Your task to perform on an android device: open app "Etsy: Buy & Sell Unique Items" (install if not already installed) Image 0: 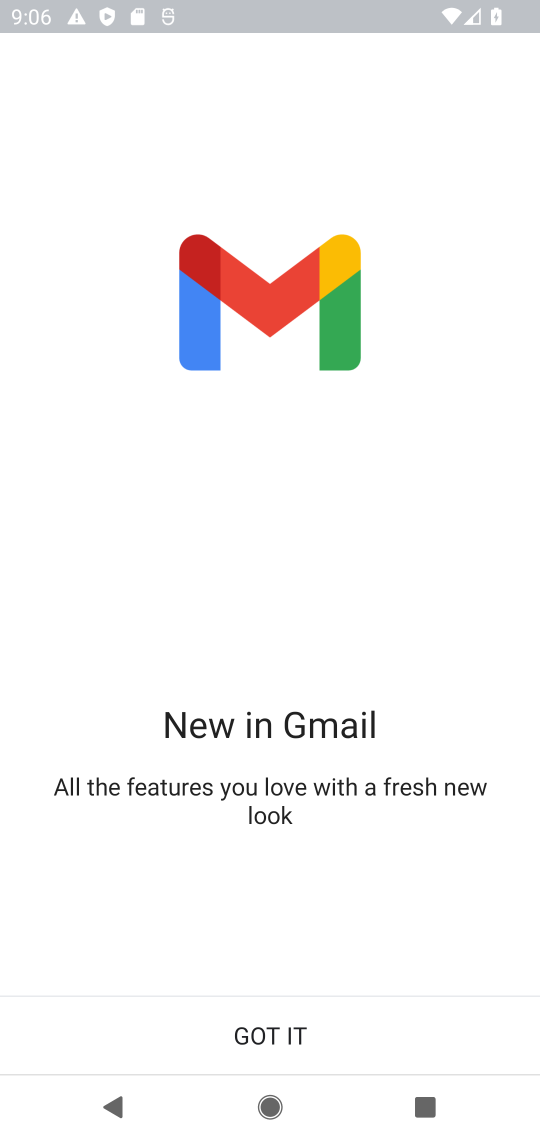
Step 0: press home button
Your task to perform on an android device: open app "Etsy: Buy & Sell Unique Items" (install if not already installed) Image 1: 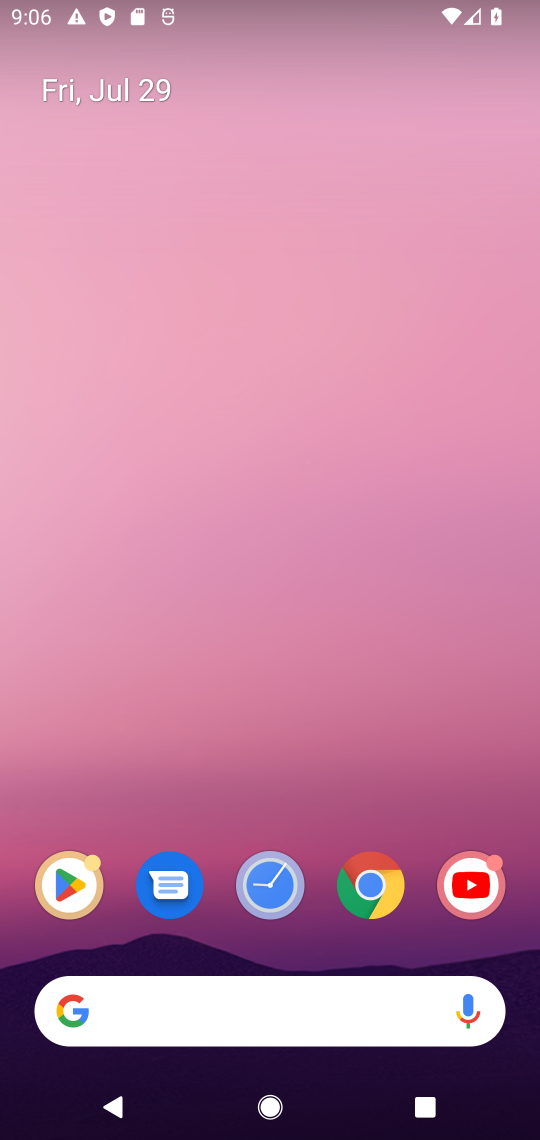
Step 1: click (77, 880)
Your task to perform on an android device: open app "Etsy: Buy & Sell Unique Items" (install if not already installed) Image 2: 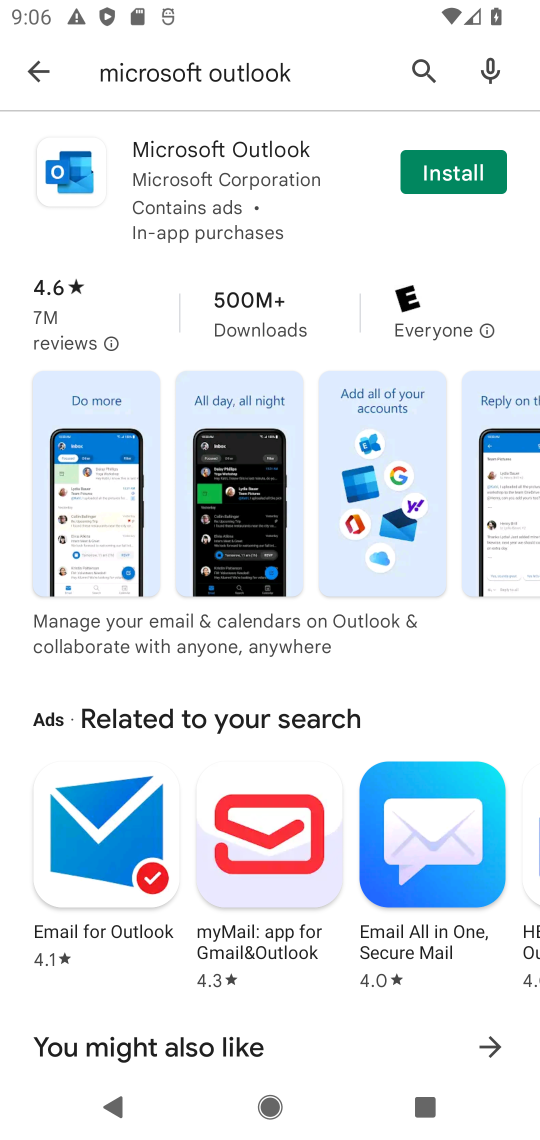
Step 2: click (195, 80)
Your task to perform on an android device: open app "Etsy: Buy & Sell Unique Items" (install if not already installed) Image 3: 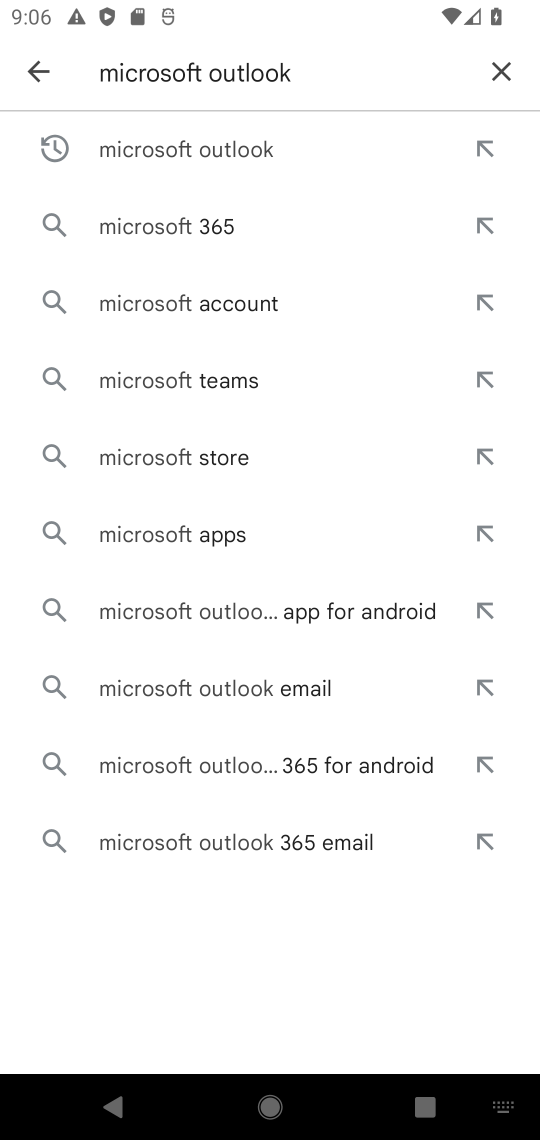
Step 3: click (502, 77)
Your task to perform on an android device: open app "Etsy: Buy & Sell Unique Items" (install if not already installed) Image 4: 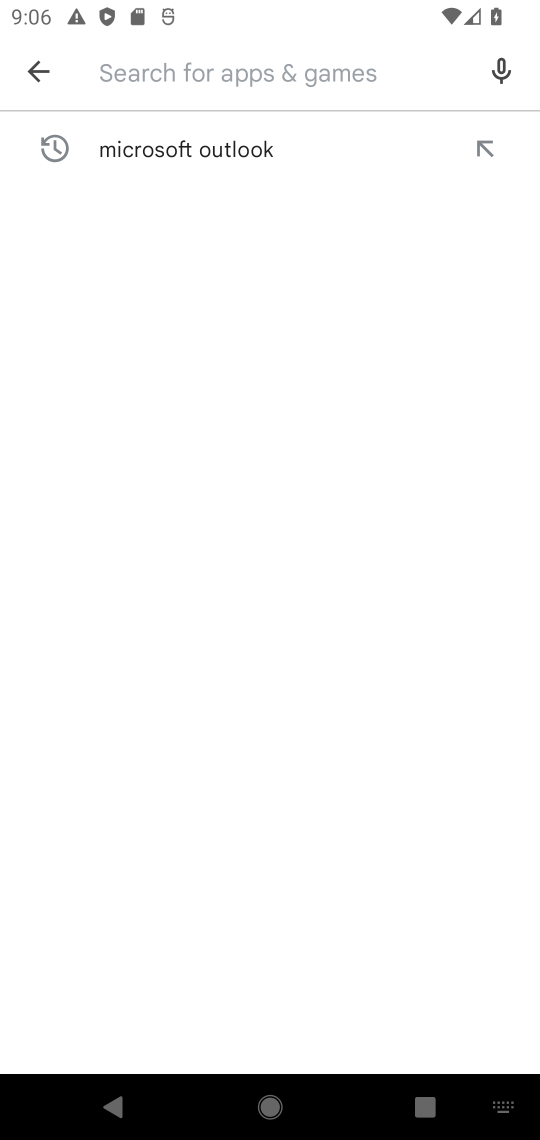
Step 4: type "etsy"
Your task to perform on an android device: open app "Etsy: Buy & Sell Unique Items" (install if not already installed) Image 5: 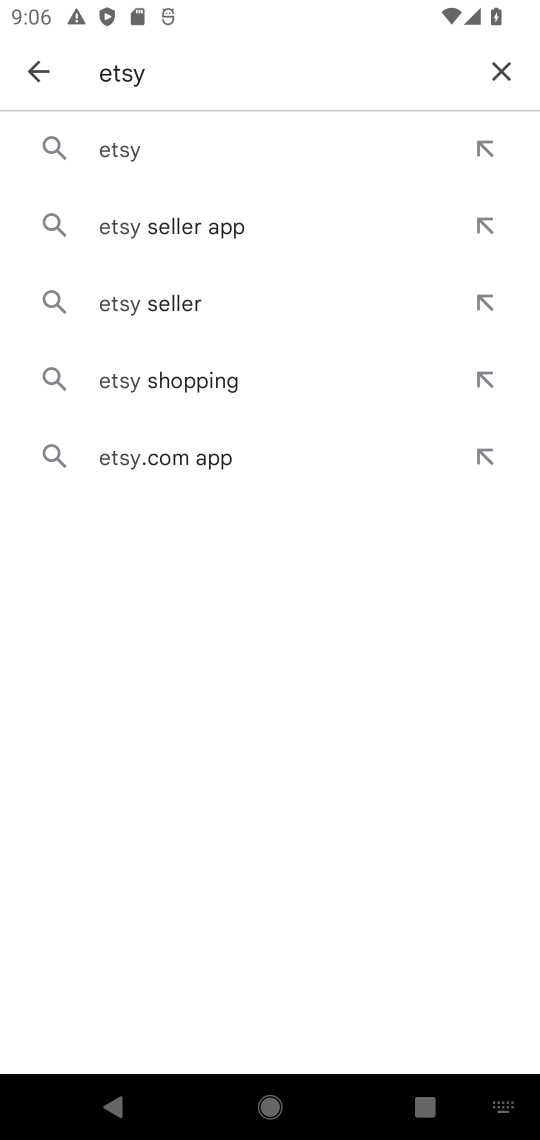
Step 5: click (147, 168)
Your task to perform on an android device: open app "Etsy: Buy & Sell Unique Items" (install if not already installed) Image 6: 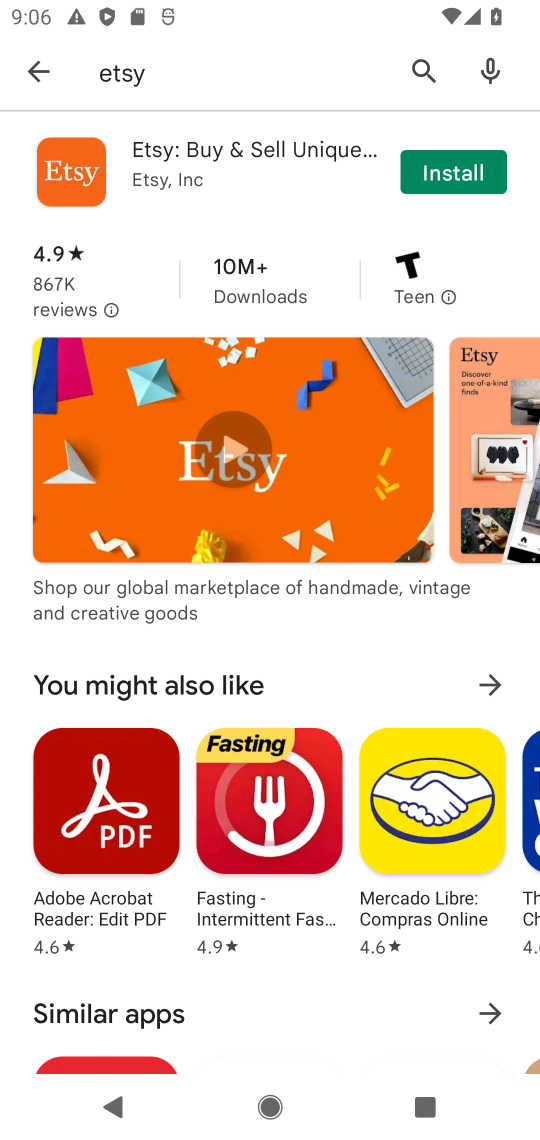
Step 6: click (479, 170)
Your task to perform on an android device: open app "Etsy: Buy & Sell Unique Items" (install if not already installed) Image 7: 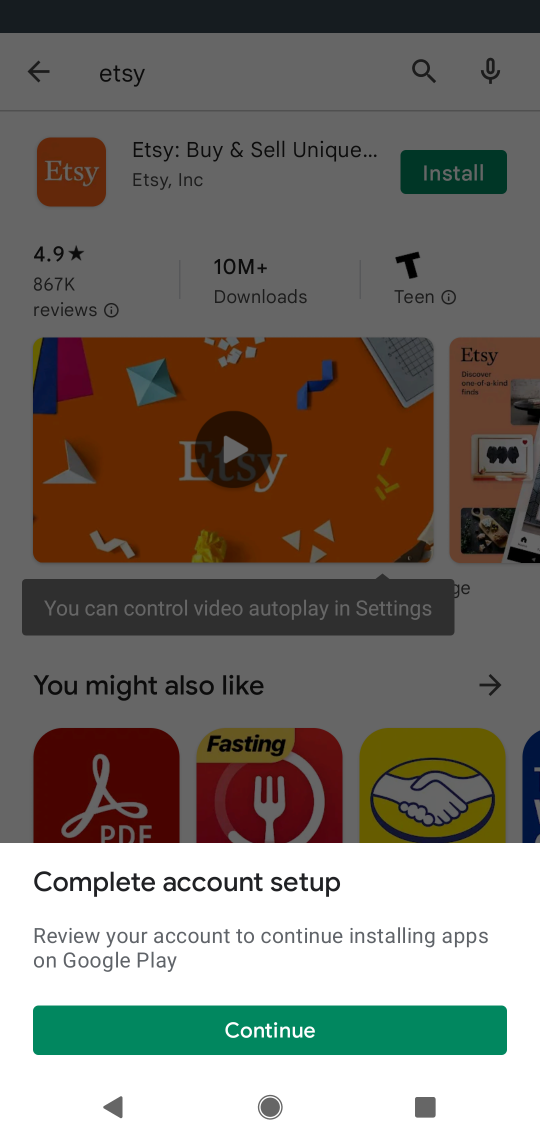
Step 7: click (302, 1035)
Your task to perform on an android device: open app "Etsy: Buy & Sell Unique Items" (install if not already installed) Image 8: 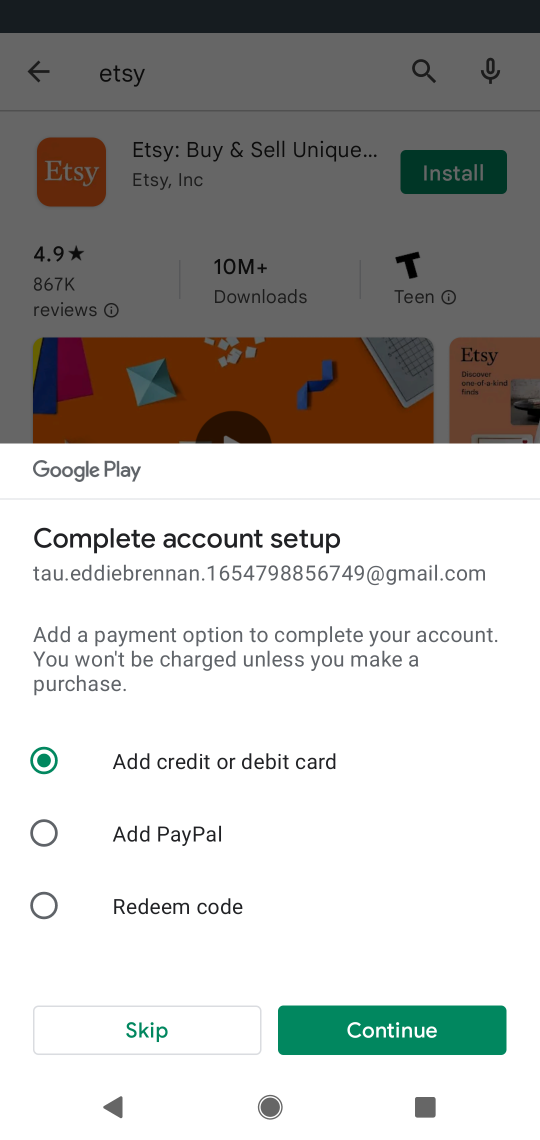
Step 8: click (159, 1031)
Your task to perform on an android device: open app "Etsy: Buy & Sell Unique Items" (install if not already installed) Image 9: 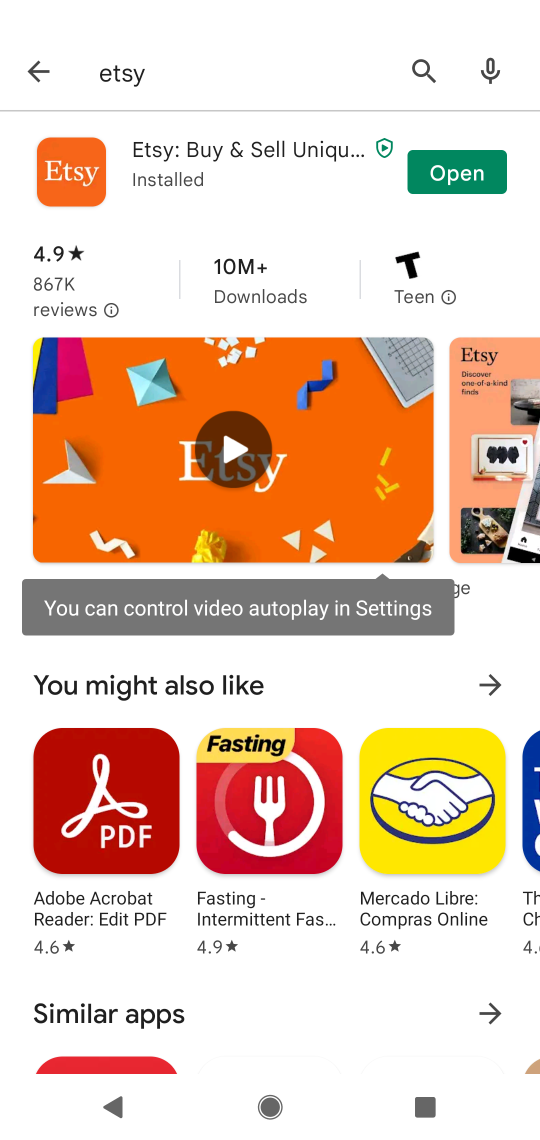
Step 9: click (451, 168)
Your task to perform on an android device: open app "Etsy: Buy & Sell Unique Items" (install if not already installed) Image 10: 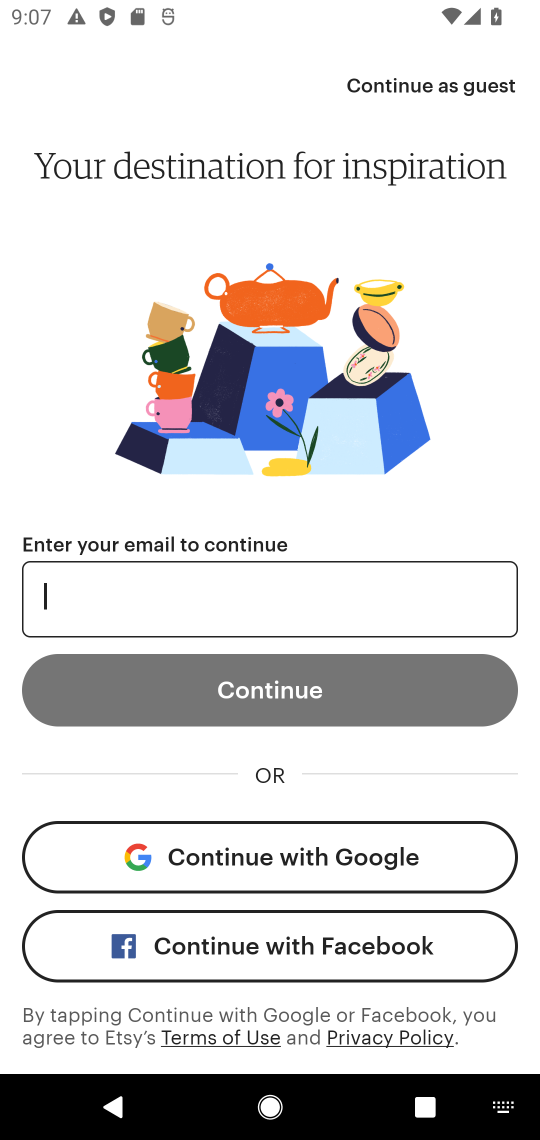
Step 10: task complete